Your task to perform on an android device: Go to privacy settings Image 0: 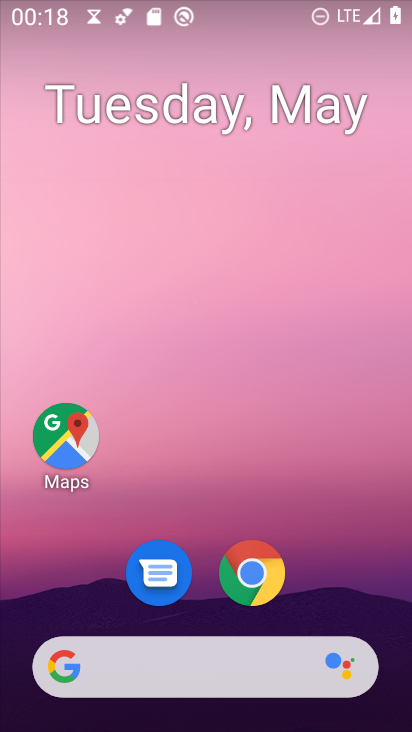
Step 0: drag from (323, 277) to (244, 10)
Your task to perform on an android device: Go to privacy settings Image 1: 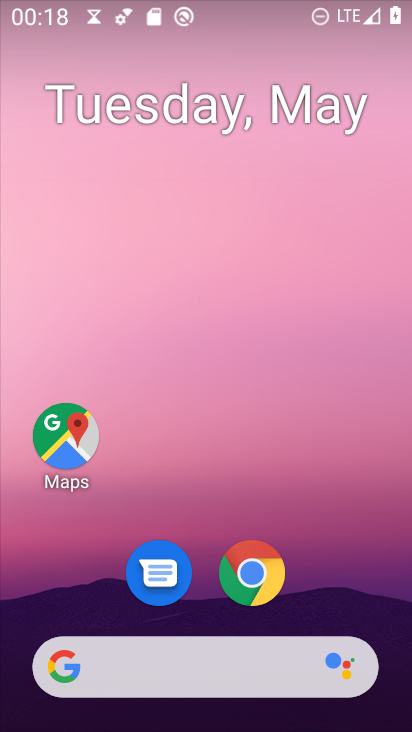
Step 1: drag from (327, 593) to (216, 67)
Your task to perform on an android device: Go to privacy settings Image 2: 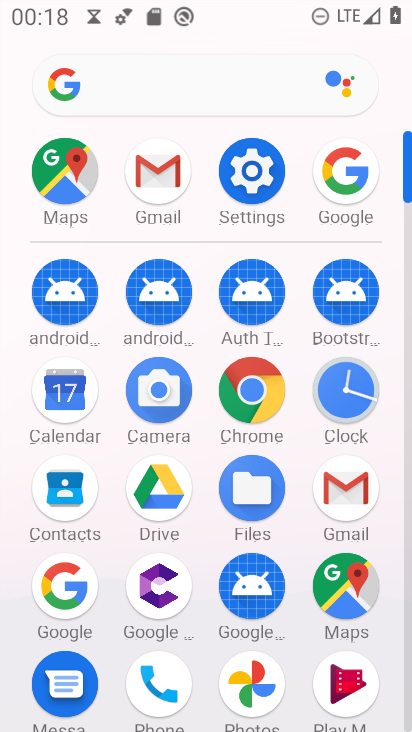
Step 2: click (255, 177)
Your task to perform on an android device: Go to privacy settings Image 3: 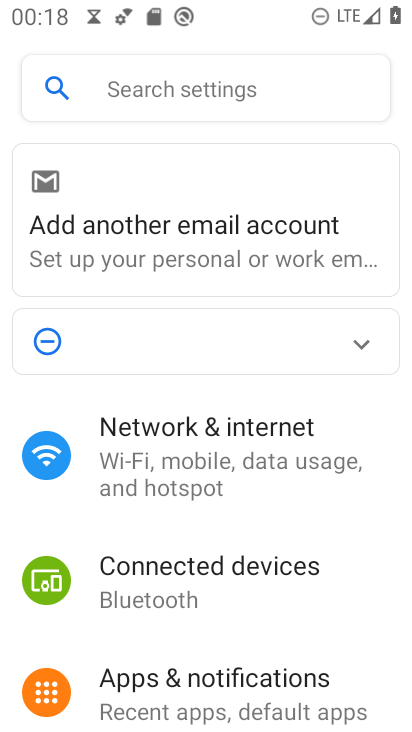
Step 3: drag from (236, 373) to (193, 81)
Your task to perform on an android device: Go to privacy settings Image 4: 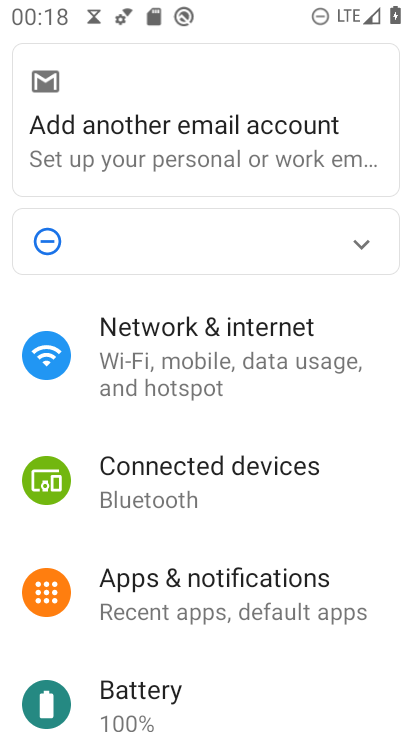
Step 4: drag from (253, 583) to (240, 96)
Your task to perform on an android device: Go to privacy settings Image 5: 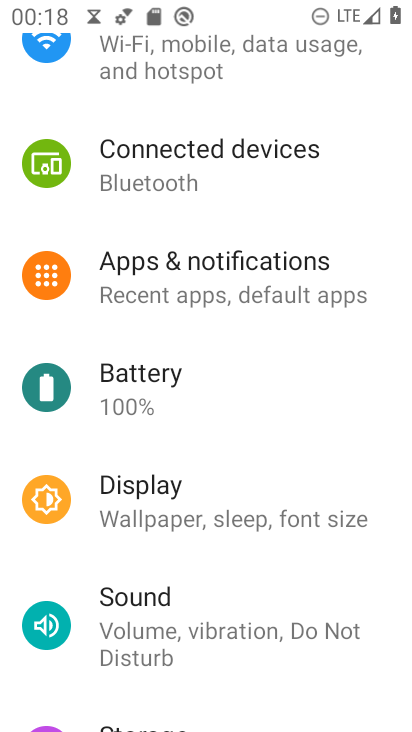
Step 5: drag from (203, 642) to (225, 180)
Your task to perform on an android device: Go to privacy settings Image 6: 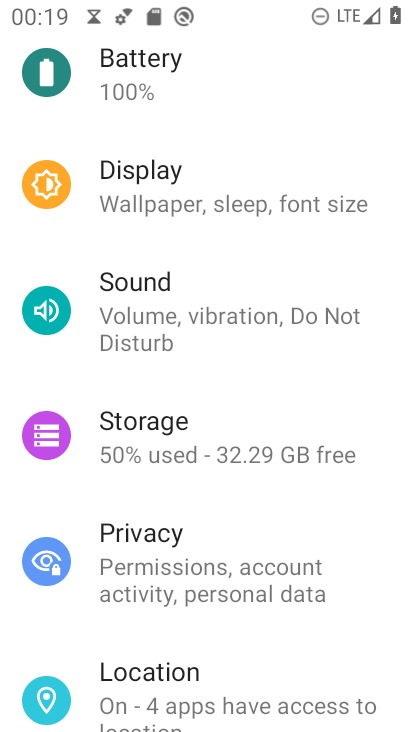
Step 6: click (188, 545)
Your task to perform on an android device: Go to privacy settings Image 7: 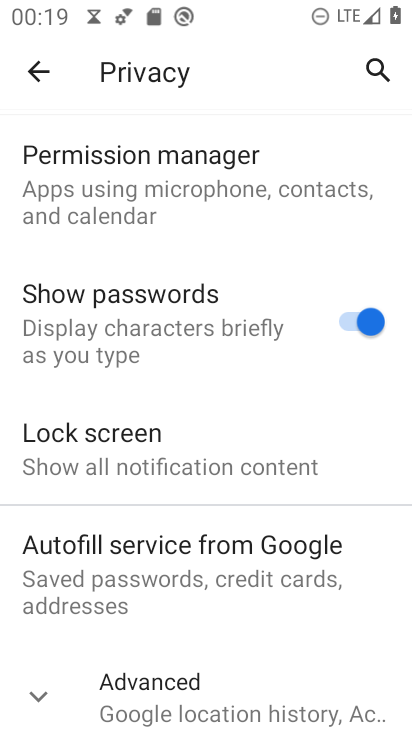
Step 7: task complete